Your task to perform on an android device: Open Android settings Image 0: 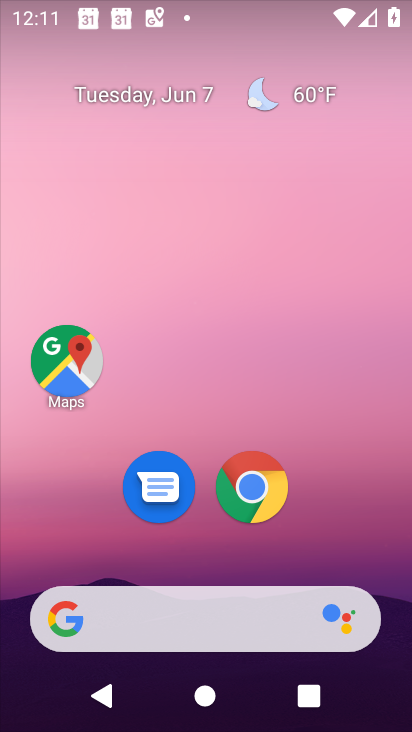
Step 0: drag from (360, 535) to (273, 183)
Your task to perform on an android device: Open Android settings Image 1: 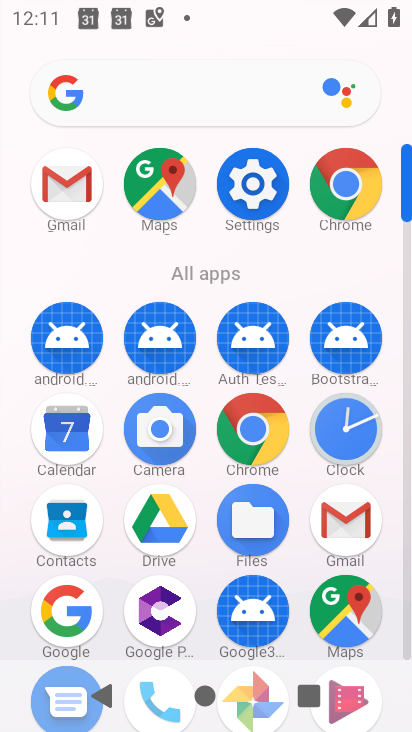
Step 1: click (245, 199)
Your task to perform on an android device: Open Android settings Image 2: 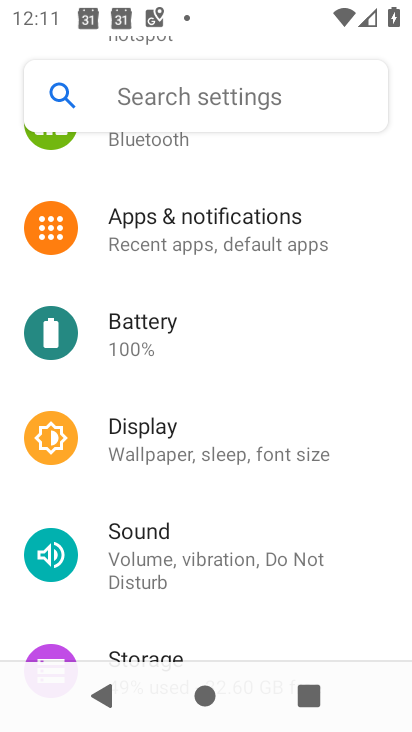
Step 2: task complete